Your task to perform on an android device: Open accessibility settings Image 0: 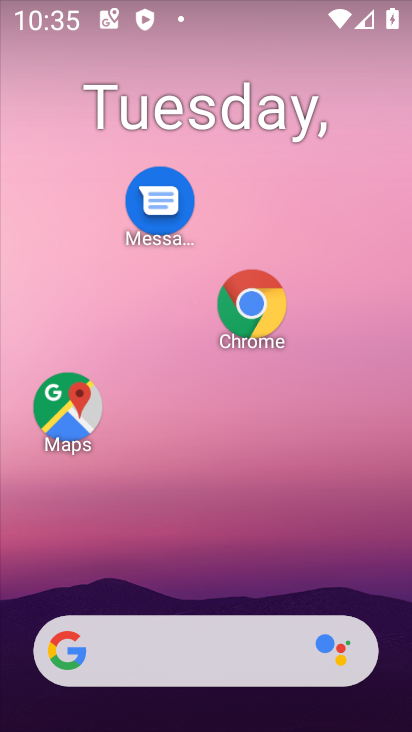
Step 0: drag from (291, 284) to (294, 244)
Your task to perform on an android device: Open accessibility settings Image 1: 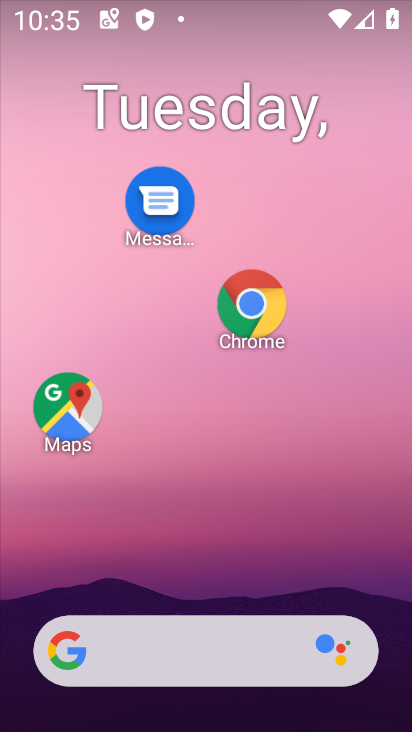
Step 1: drag from (203, 516) to (291, 86)
Your task to perform on an android device: Open accessibility settings Image 2: 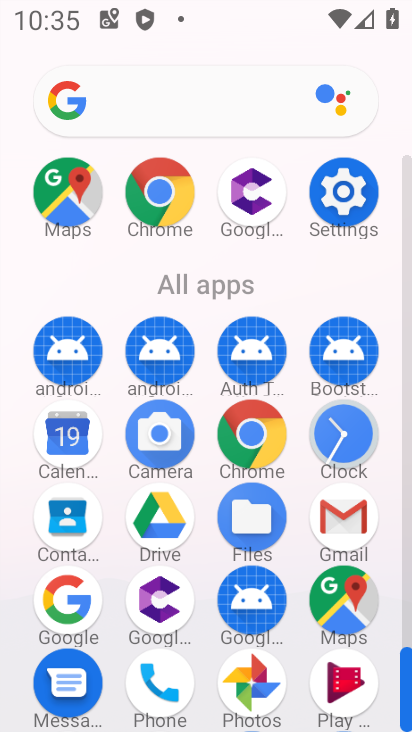
Step 2: click (358, 186)
Your task to perform on an android device: Open accessibility settings Image 3: 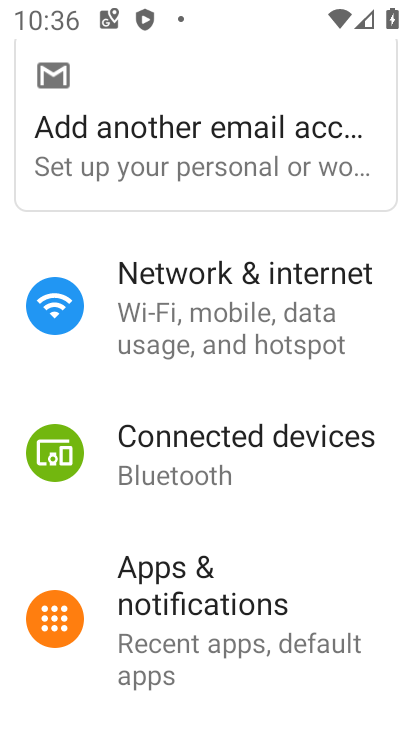
Step 3: drag from (202, 543) to (288, 126)
Your task to perform on an android device: Open accessibility settings Image 4: 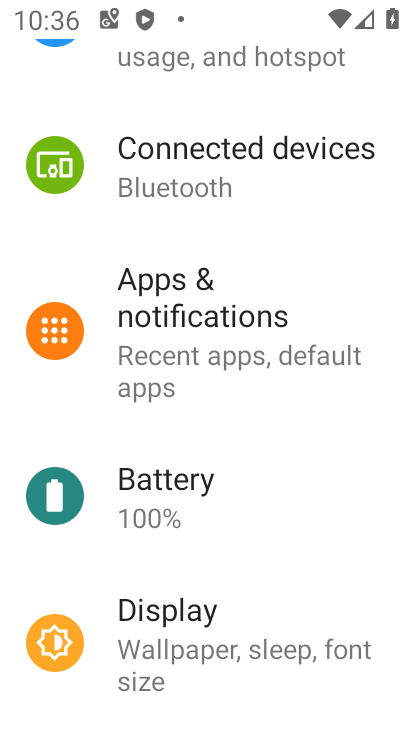
Step 4: drag from (230, 566) to (315, 93)
Your task to perform on an android device: Open accessibility settings Image 5: 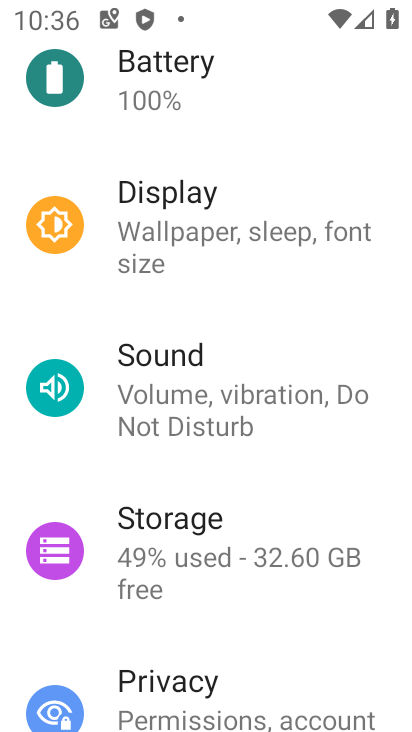
Step 5: drag from (248, 642) to (274, 171)
Your task to perform on an android device: Open accessibility settings Image 6: 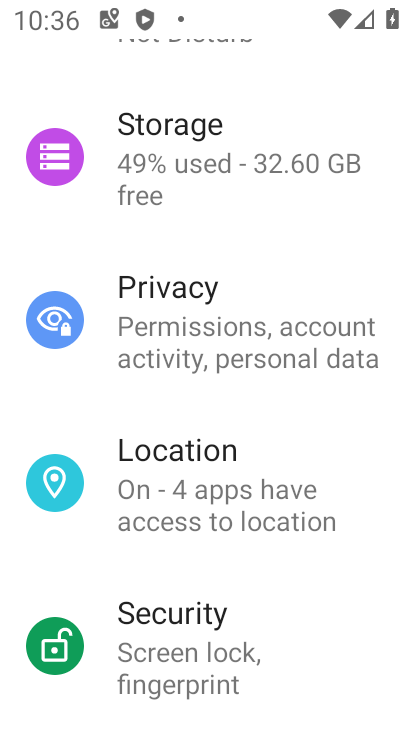
Step 6: drag from (234, 591) to (319, 131)
Your task to perform on an android device: Open accessibility settings Image 7: 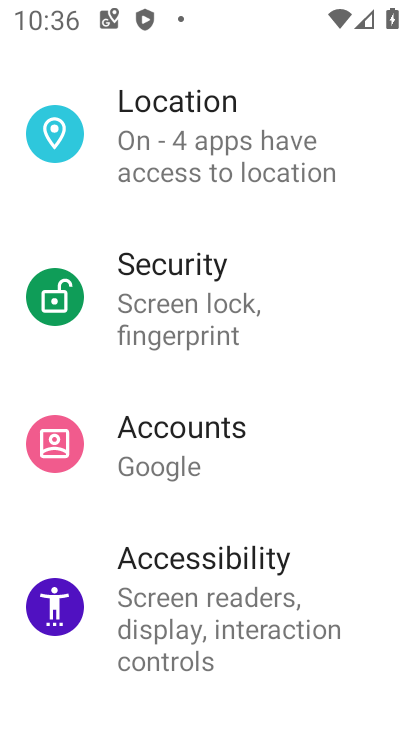
Step 7: click (180, 594)
Your task to perform on an android device: Open accessibility settings Image 8: 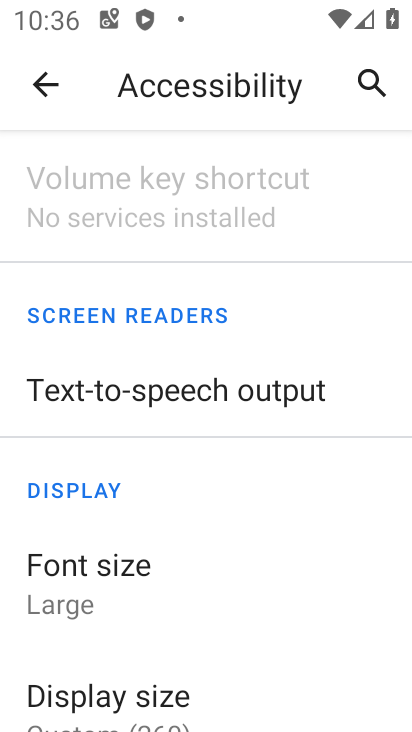
Step 8: task complete